Your task to perform on an android device: Open Wikipedia Image 0: 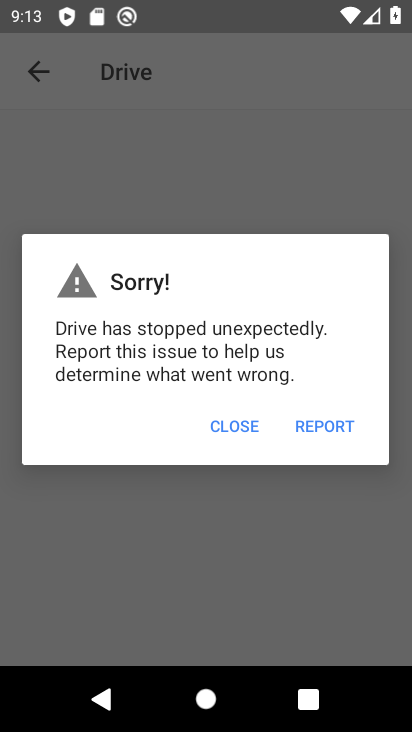
Step 0: click (250, 503)
Your task to perform on an android device: Open Wikipedia Image 1: 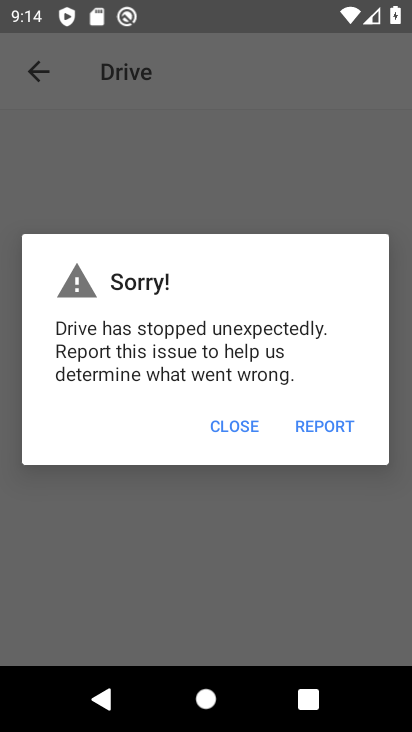
Step 1: press home button
Your task to perform on an android device: Open Wikipedia Image 2: 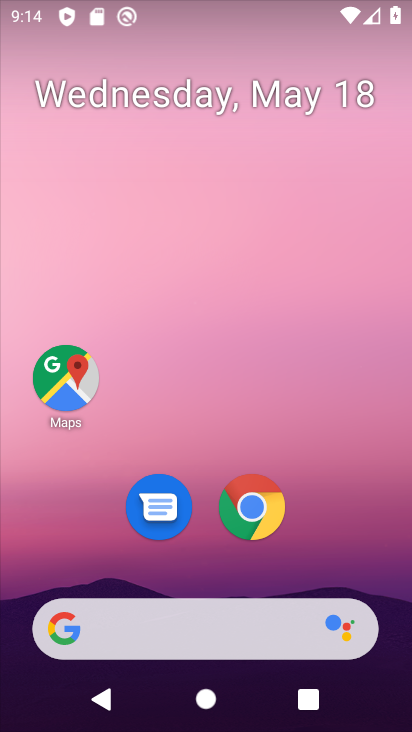
Step 2: click (262, 510)
Your task to perform on an android device: Open Wikipedia Image 3: 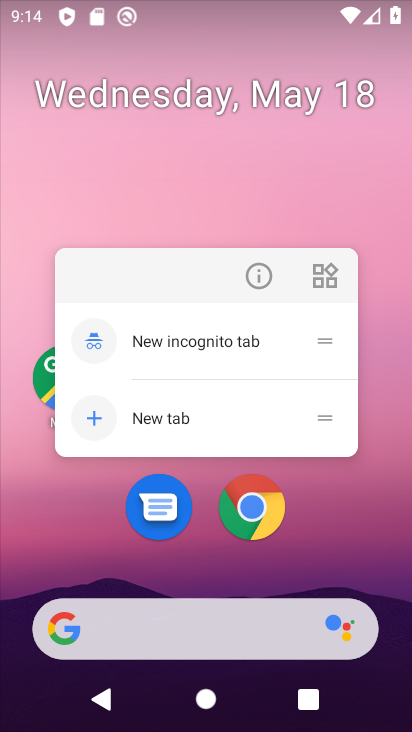
Step 3: click (247, 526)
Your task to perform on an android device: Open Wikipedia Image 4: 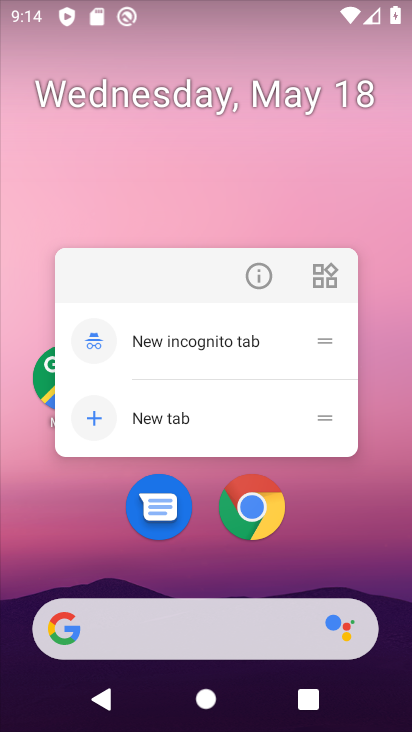
Step 4: click (243, 519)
Your task to perform on an android device: Open Wikipedia Image 5: 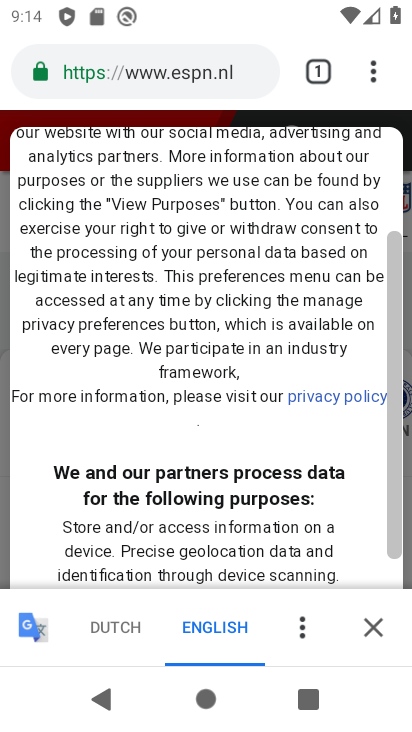
Step 5: click (220, 71)
Your task to perform on an android device: Open Wikipedia Image 6: 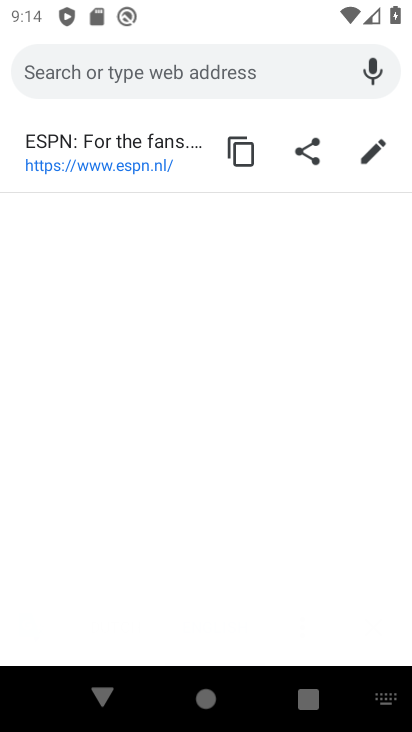
Step 6: type "wikipedia"
Your task to perform on an android device: Open Wikipedia Image 7: 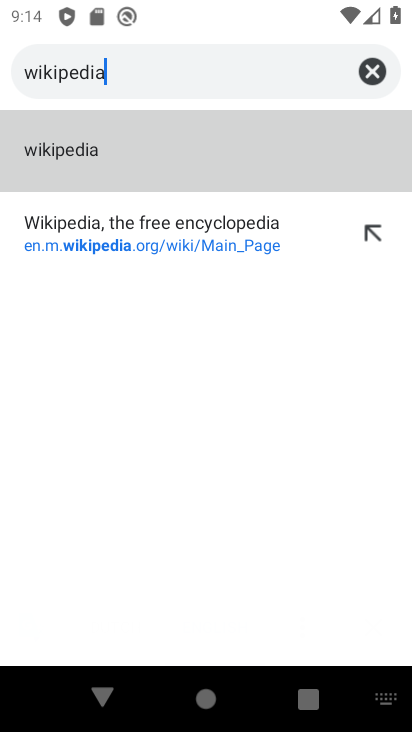
Step 7: click (79, 165)
Your task to perform on an android device: Open Wikipedia Image 8: 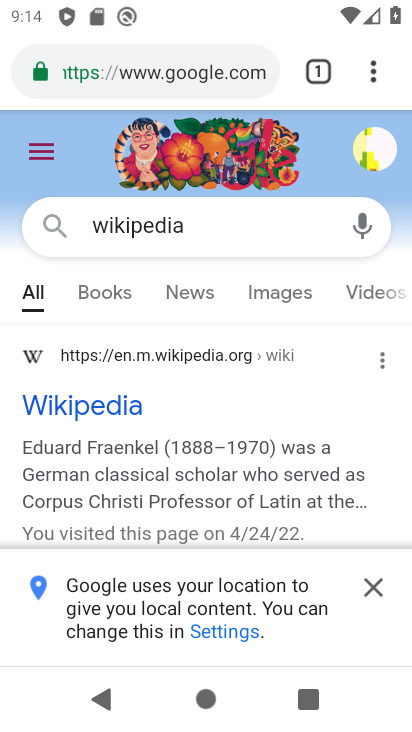
Step 8: click (115, 401)
Your task to perform on an android device: Open Wikipedia Image 9: 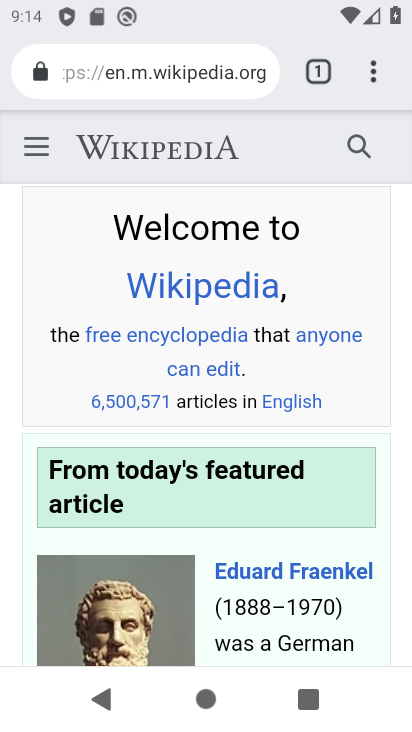
Step 9: task complete